Your task to perform on an android device: Show the shopping cart on walmart.com. Search for "asus rog" on walmart.com, select the first entry, and add it to the cart. Image 0: 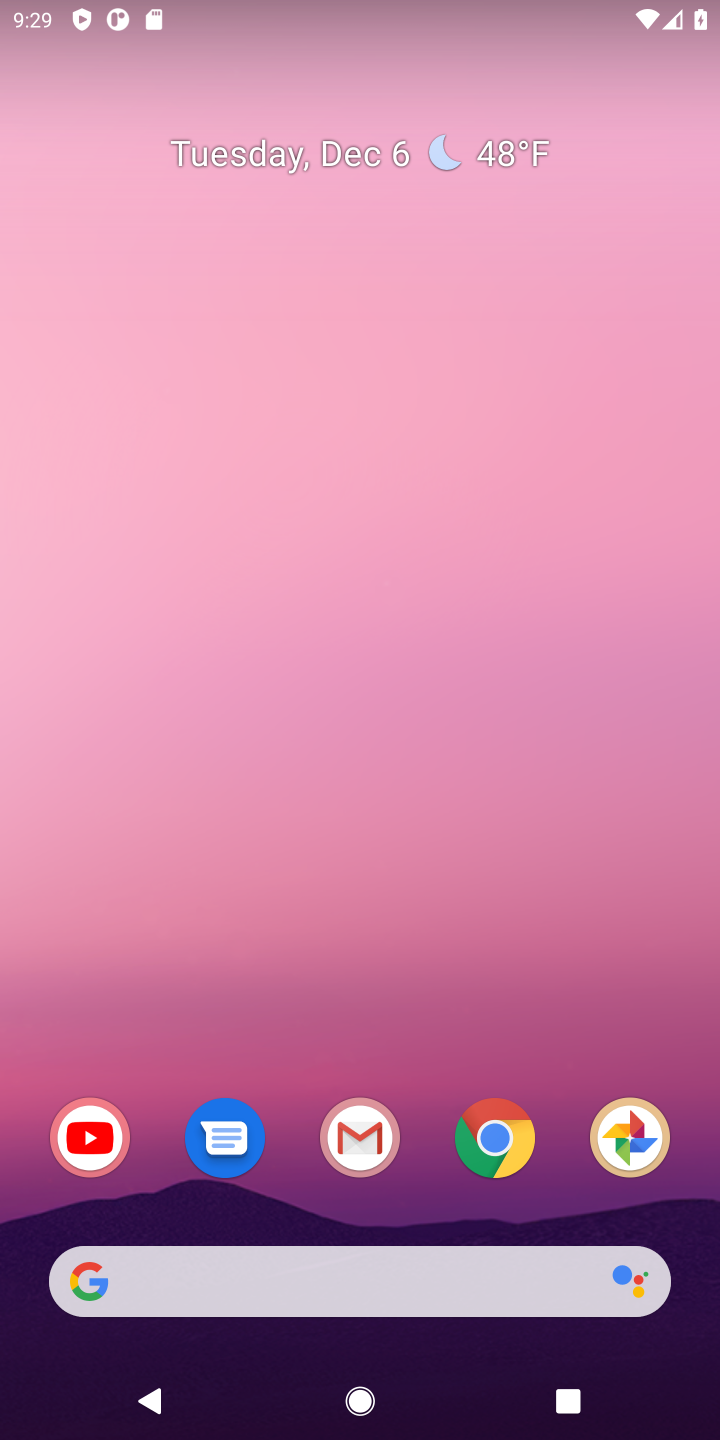
Step 0: click (496, 1146)
Your task to perform on an android device: Show the shopping cart on walmart.com. Search for "asus rog" on walmart.com, select the first entry, and add it to the cart. Image 1: 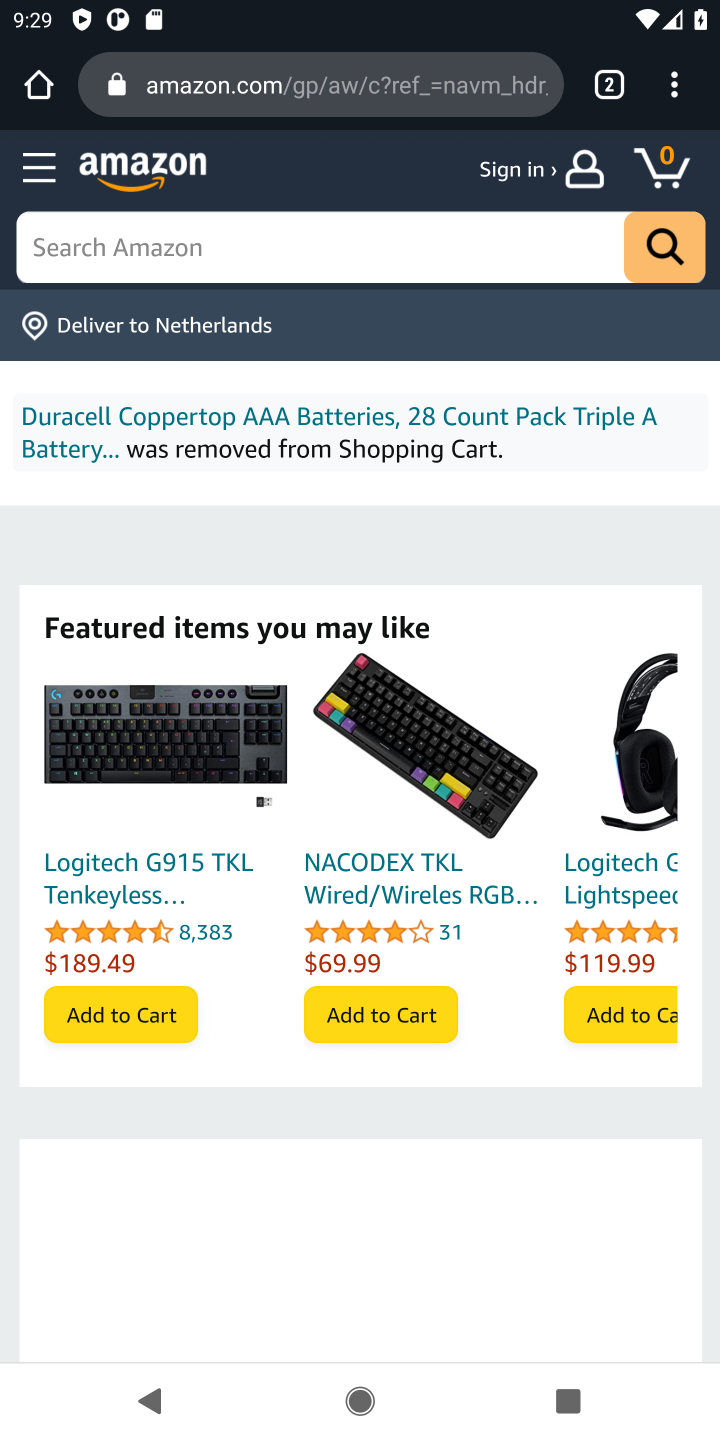
Step 1: click (283, 100)
Your task to perform on an android device: Show the shopping cart on walmart.com. Search for "asus rog" on walmart.com, select the first entry, and add it to the cart. Image 2: 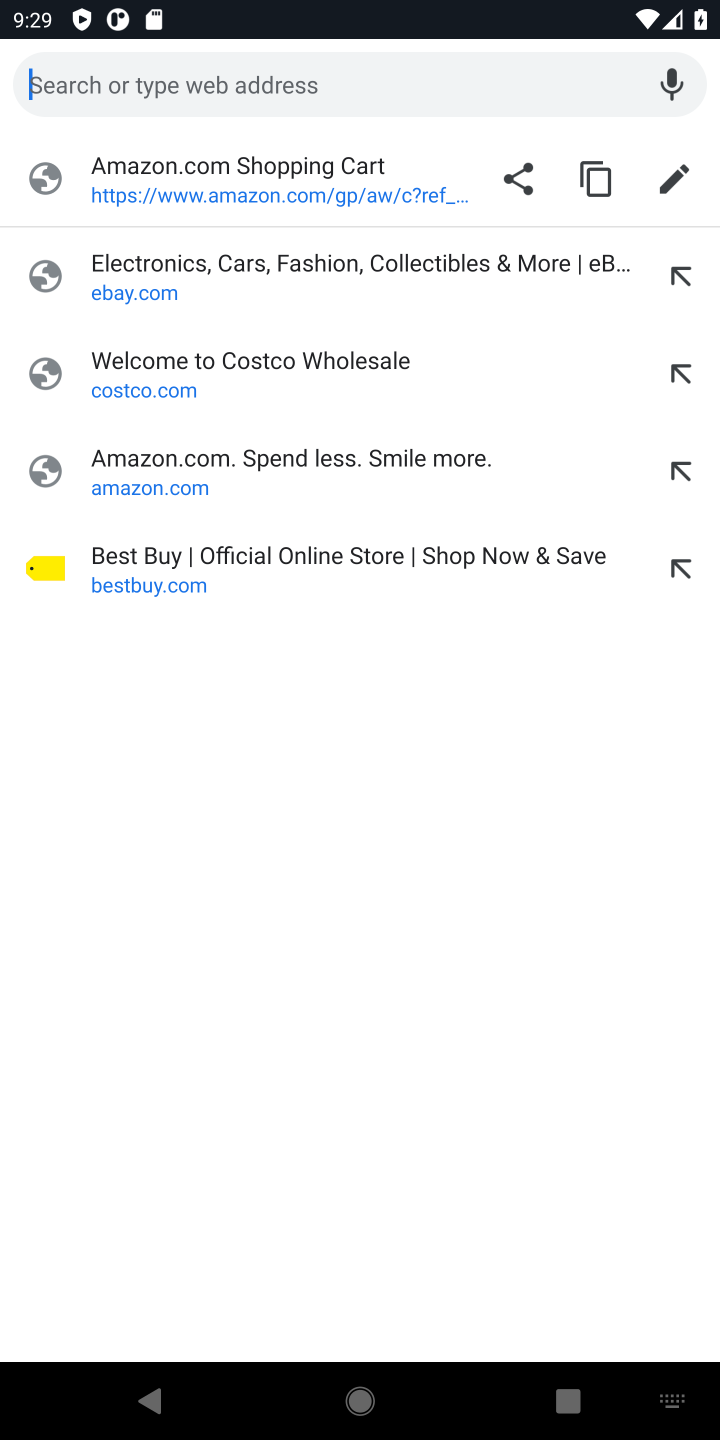
Step 2: type "walmart.com"
Your task to perform on an android device: Show the shopping cart on walmart.com. Search for "asus rog" on walmart.com, select the first entry, and add it to the cart. Image 3: 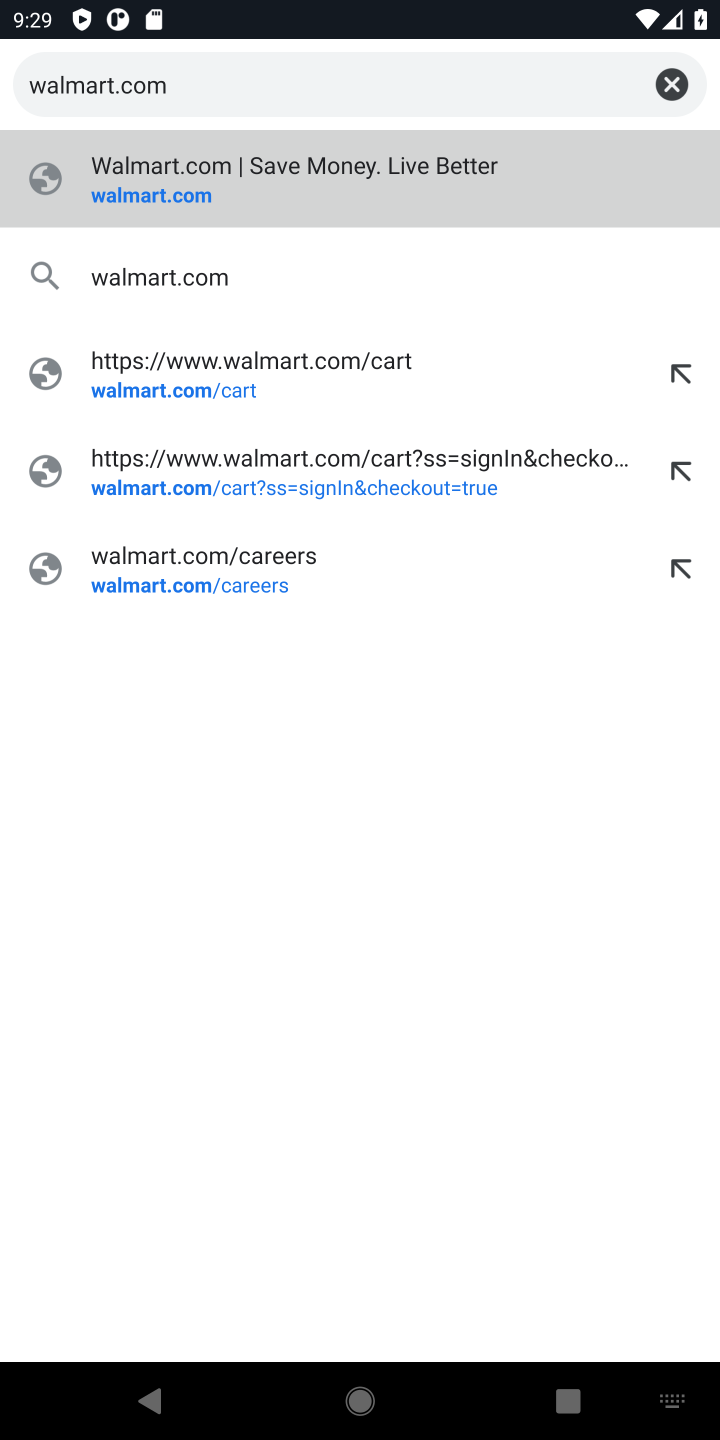
Step 3: click (158, 205)
Your task to perform on an android device: Show the shopping cart on walmart.com. Search for "asus rog" on walmart.com, select the first entry, and add it to the cart. Image 4: 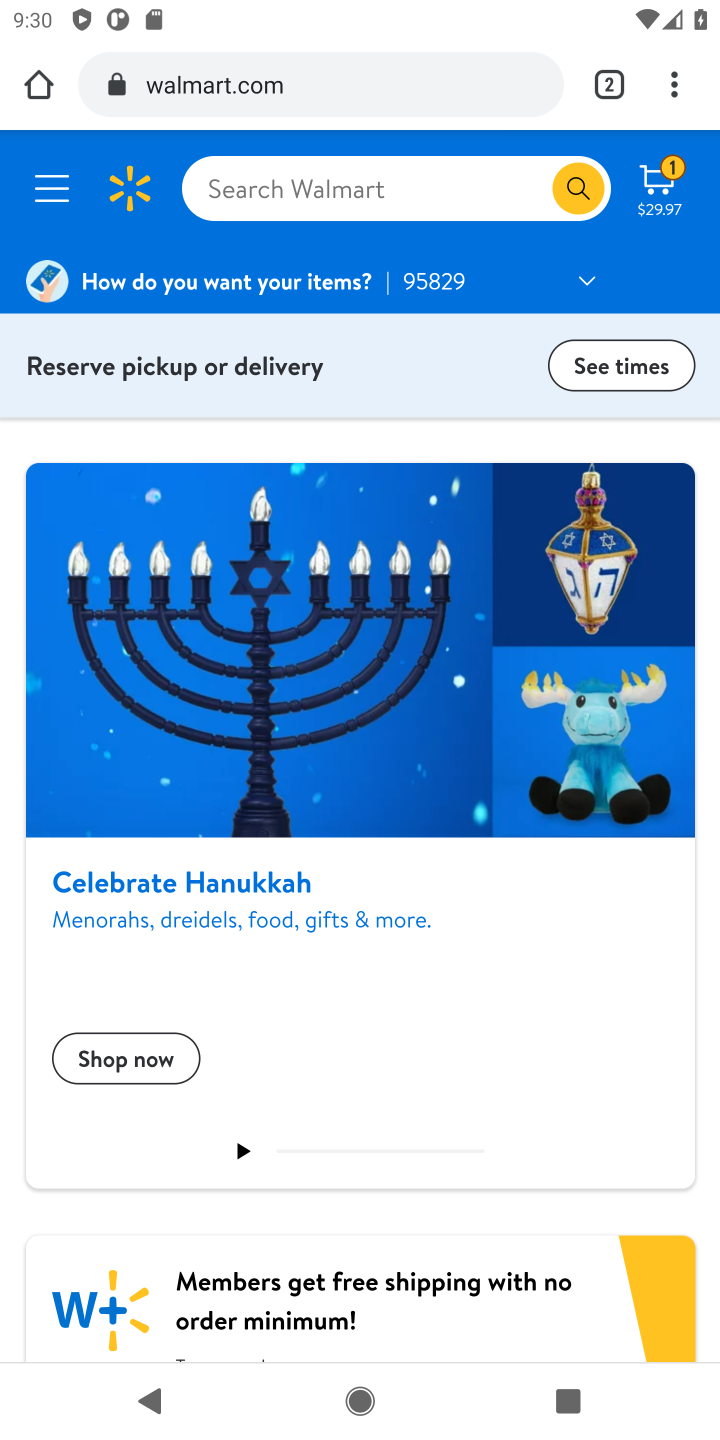
Step 4: click (655, 184)
Your task to perform on an android device: Show the shopping cart on walmart.com. Search for "asus rog" on walmart.com, select the first entry, and add it to the cart. Image 5: 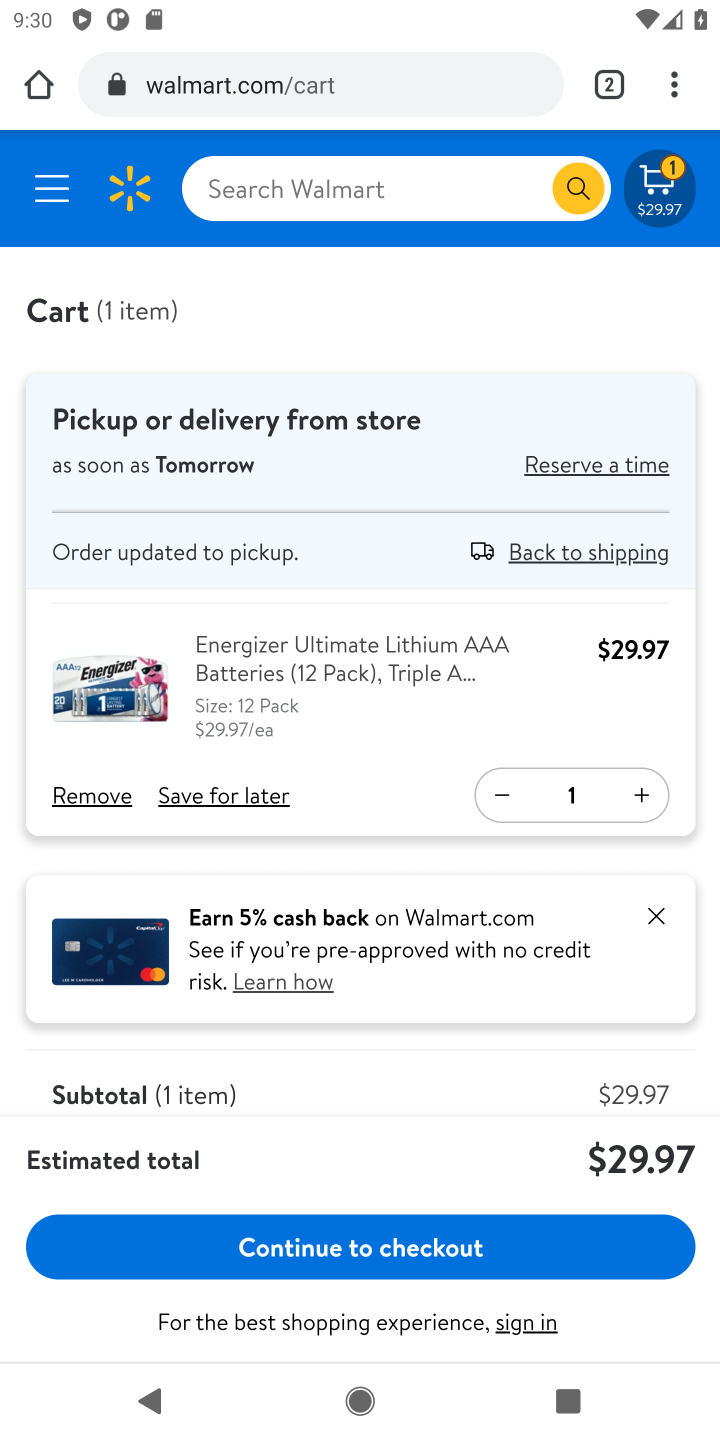
Step 5: click (305, 205)
Your task to perform on an android device: Show the shopping cart on walmart.com. Search for "asus rog" on walmart.com, select the first entry, and add it to the cart. Image 6: 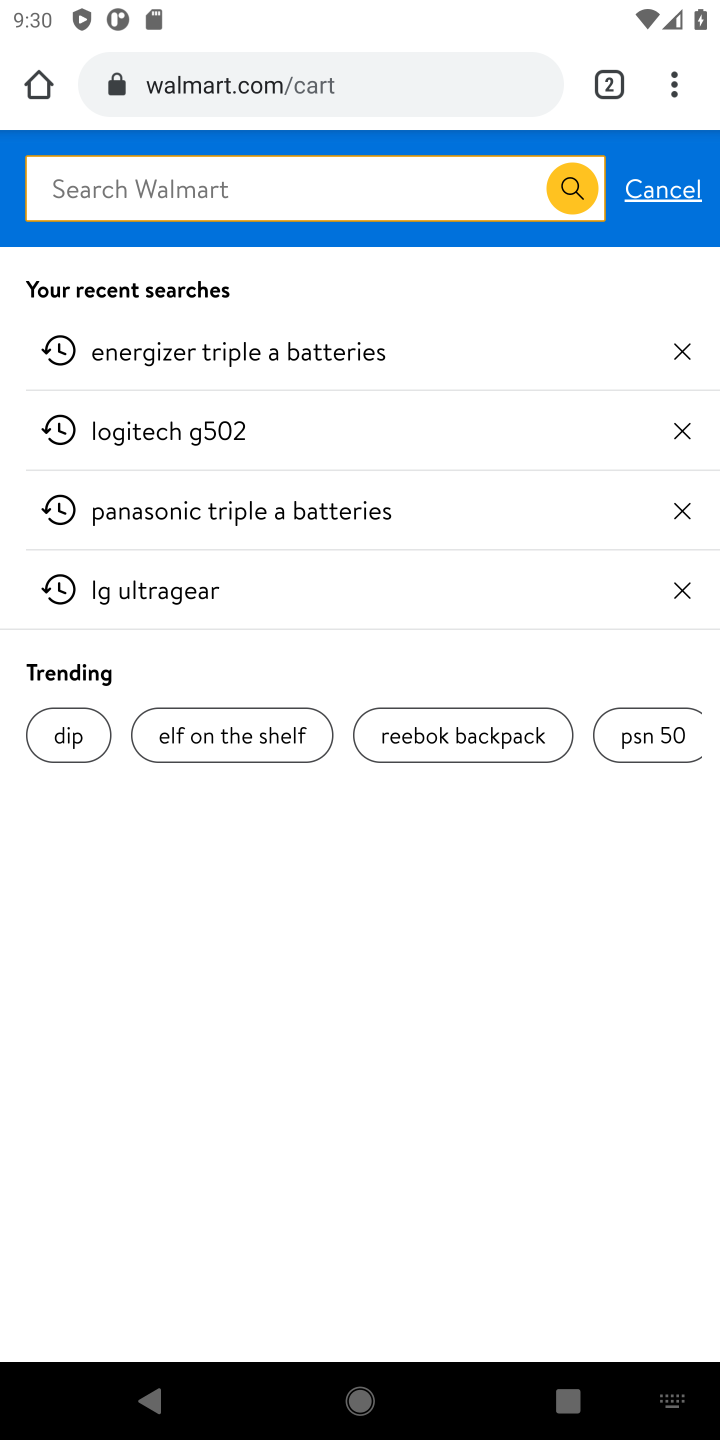
Step 6: type "asus rog"
Your task to perform on an android device: Show the shopping cart on walmart.com. Search for "asus rog" on walmart.com, select the first entry, and add it to the cart. Image 7: 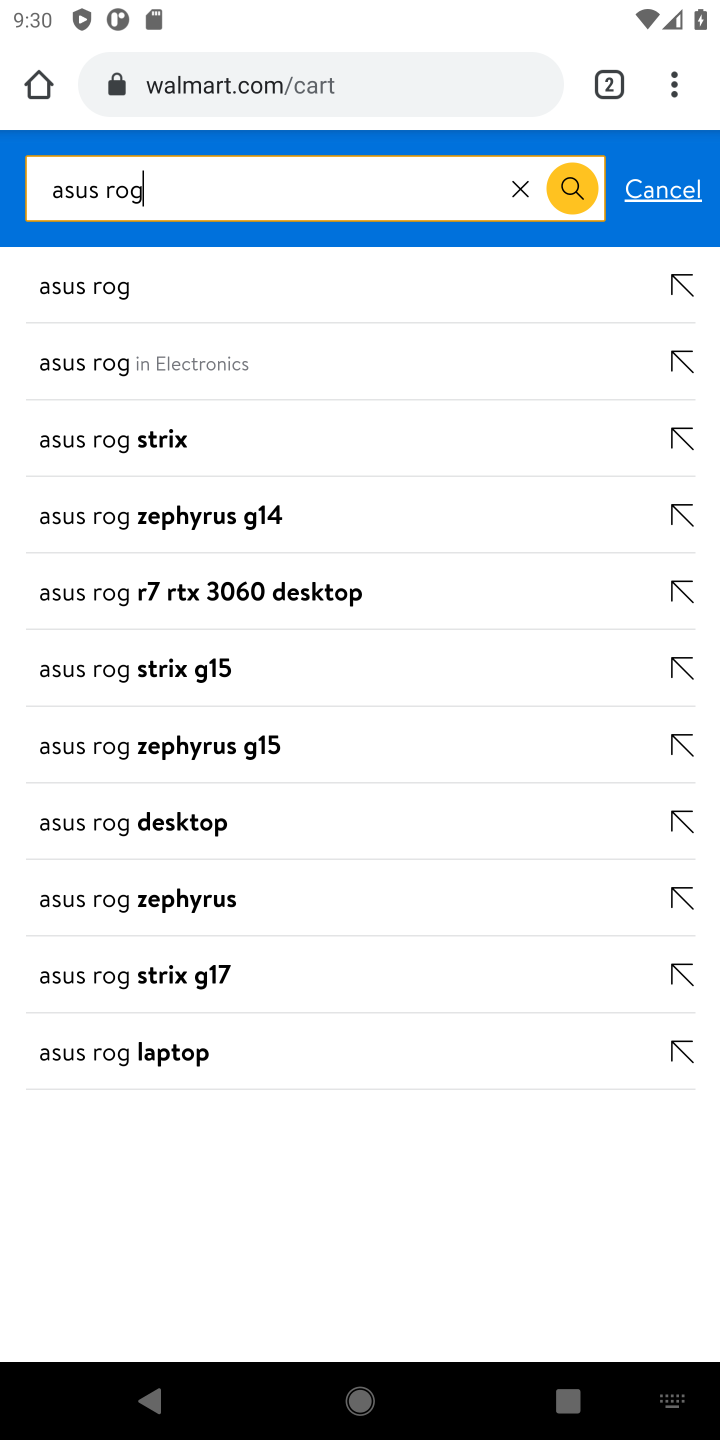
Step 7: click (63, 298)
Your task to perform on an android device: Show the shopping cart on walmart.com. Search for "asus rog" on walmart.com, select the first entry, and add it to the cart. Image 8: 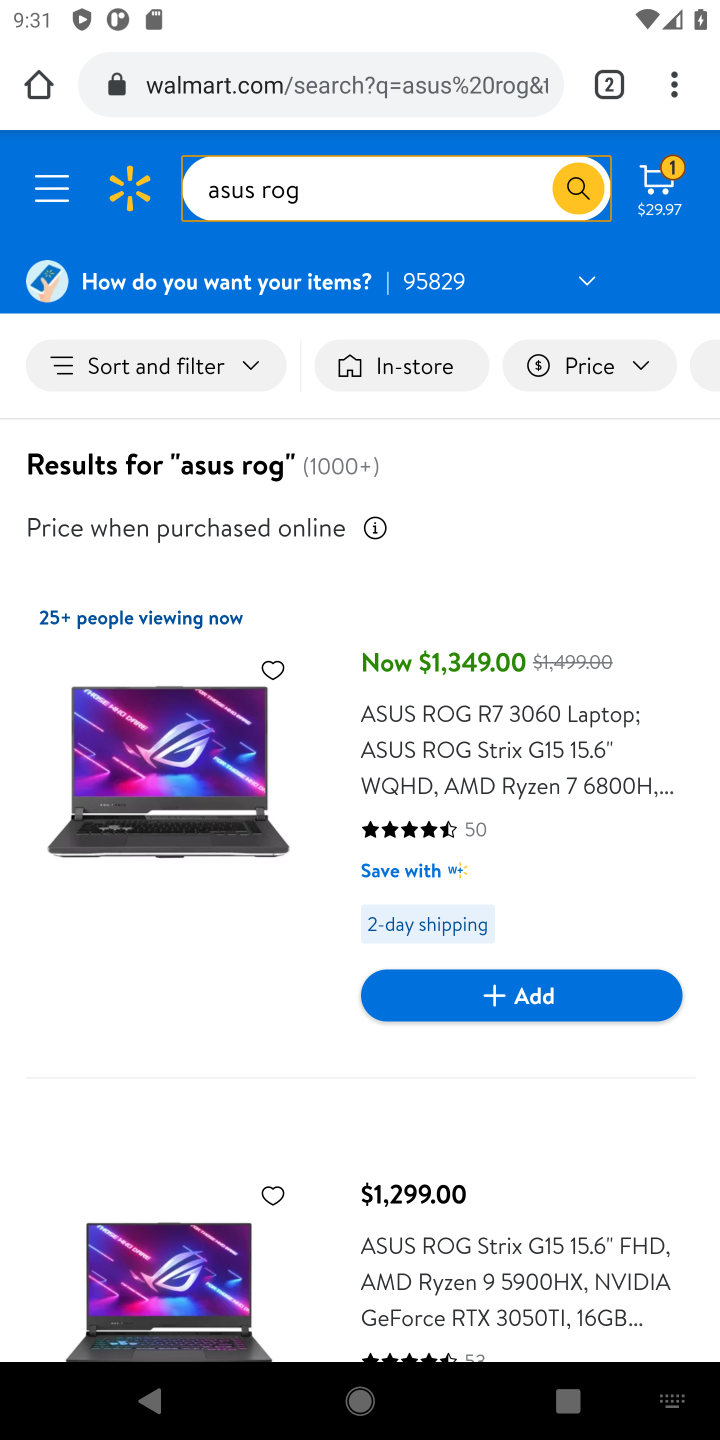
Step 8: click (489, 1012)
Your task to perform on an android device: Show the shopping cart on walmart.com. Search for "asus rog" on walmart.com, select the first entry, and add it to the cart. Image 9: 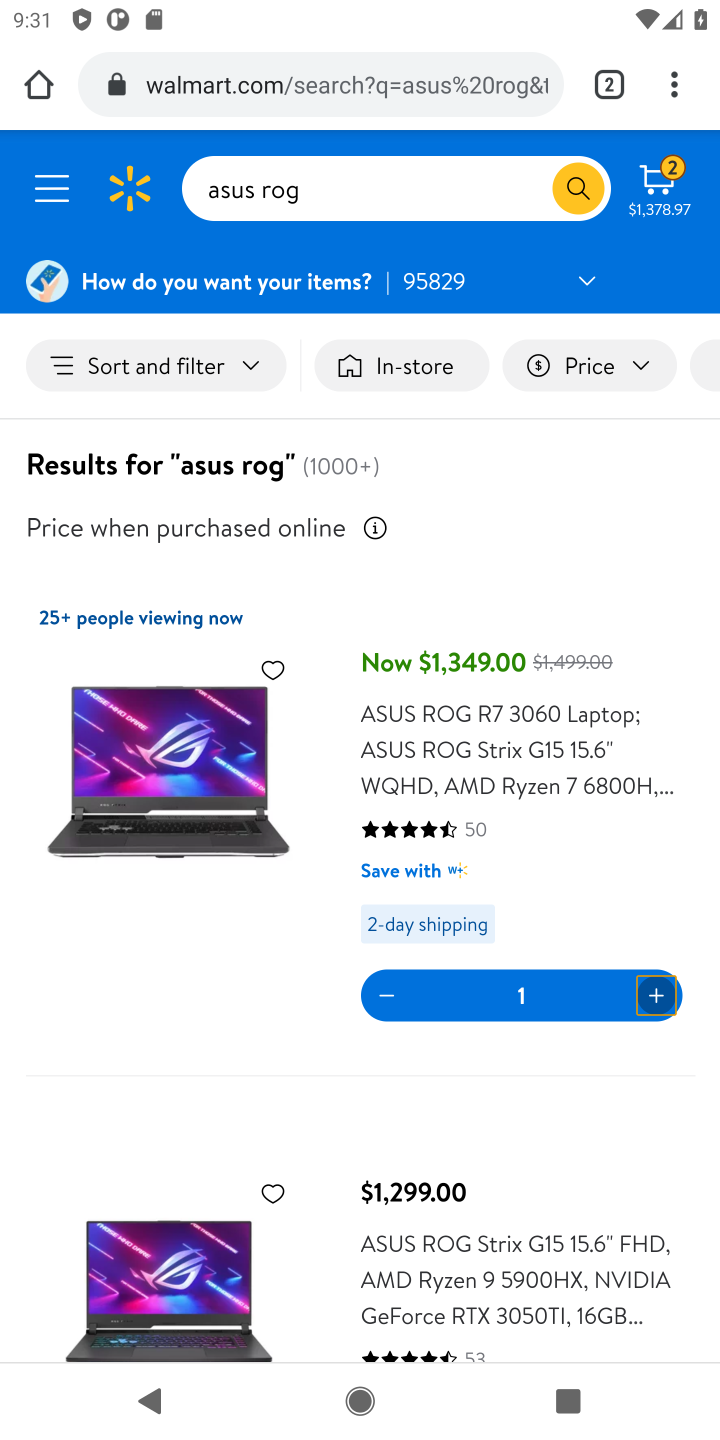
Step 9: task complete